Your task to perform on an android device: change notification settings in the gmail app Image 0: 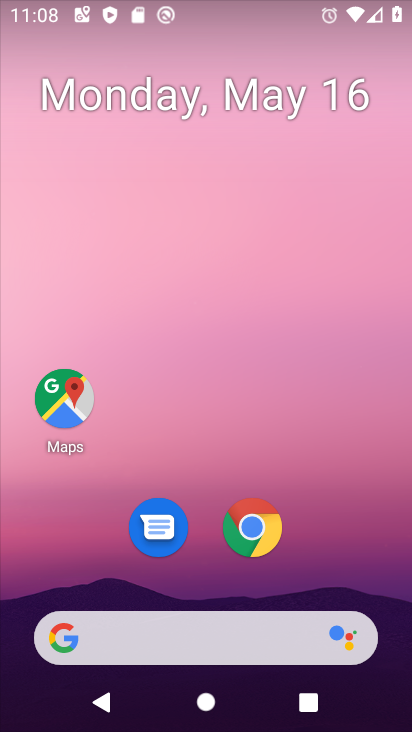
Step 0: drag from (364, 442) to (276, 6)
Your task to perform on an android device: change notification settings in the gmail app Image 1: 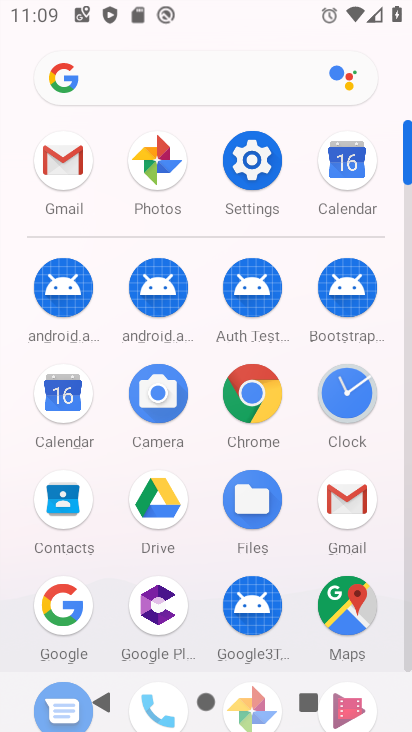
Step 1: click (62, 169)
Your task to perform on an android device: change notification settings in the gmail app Image 2: 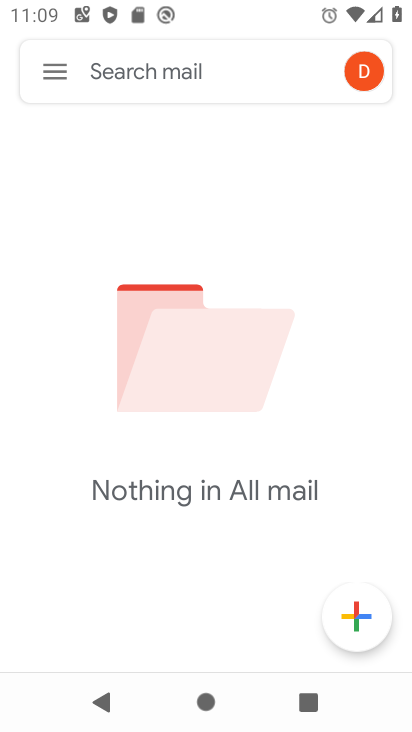
Step 2: click (44, 72)
Your task to perform on an android device: change notification settings in the gmail app Image 3: 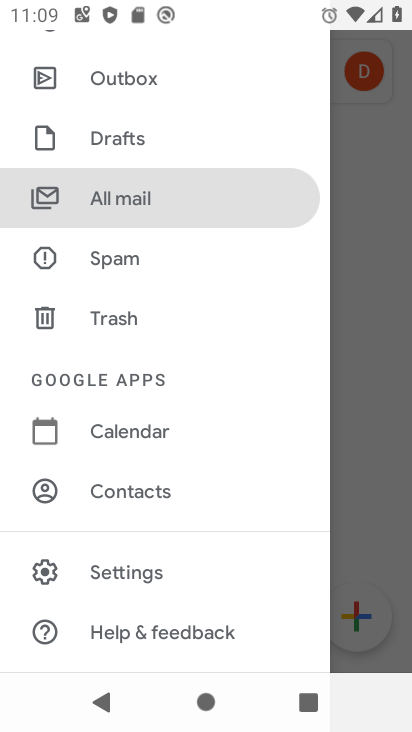
Step 3: click (126, 567)
Your task to perform on an android device: change notification settings in the gmail app Image 4: 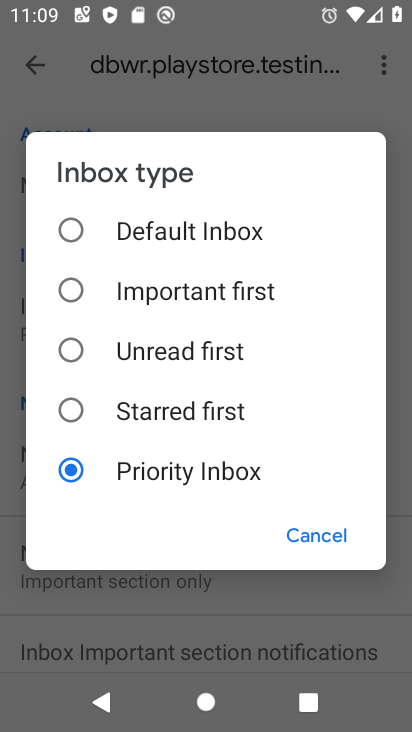
Step 4: click (324, 539)
Your task to perform on an android device: change notification settings in the gmail app Image 5: 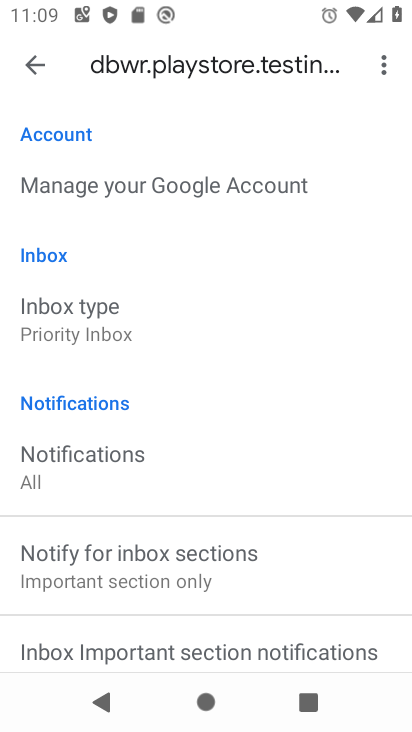
Step 5: click (37, 67)
Your task to perform on an android device: change notification settings in the gmail app Image 6: 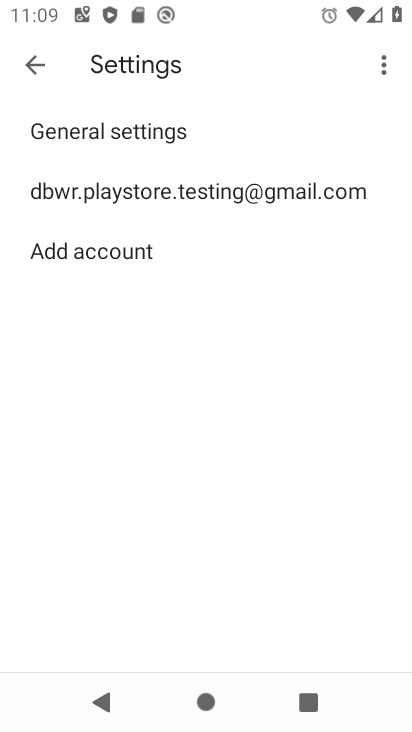
Step 6: click (75, 131)
Your task to perform on an android device: change notification settings in the gmail app Image 7: 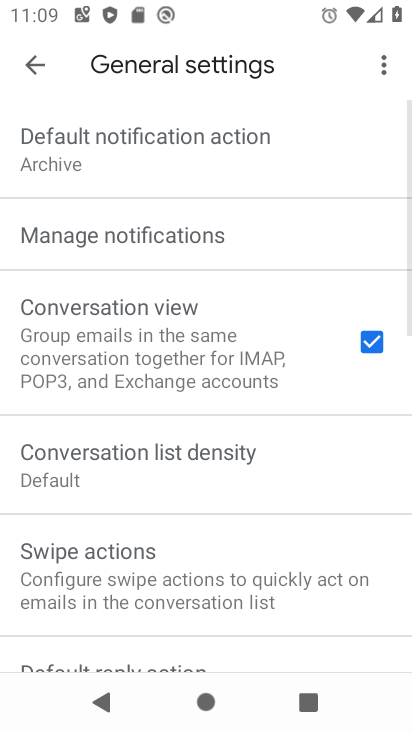
Step 7: click (89, 240)
Your task to perform on an android device: change notification settings in the gmail app Image 8: 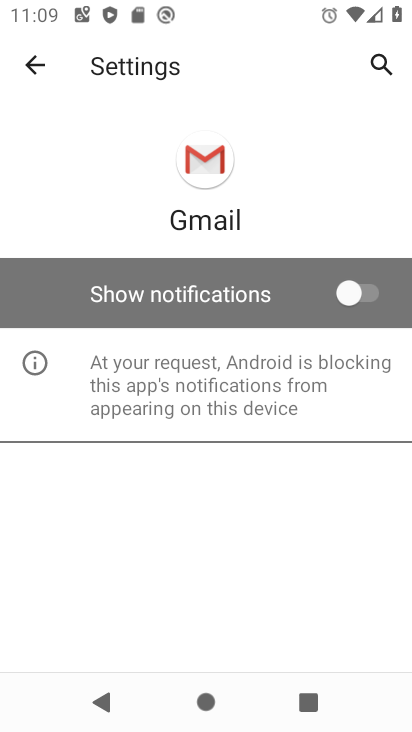
Step 8: click (361, 290)
Your task to perform on an android device: change notification settings in the gmail app Image 9: 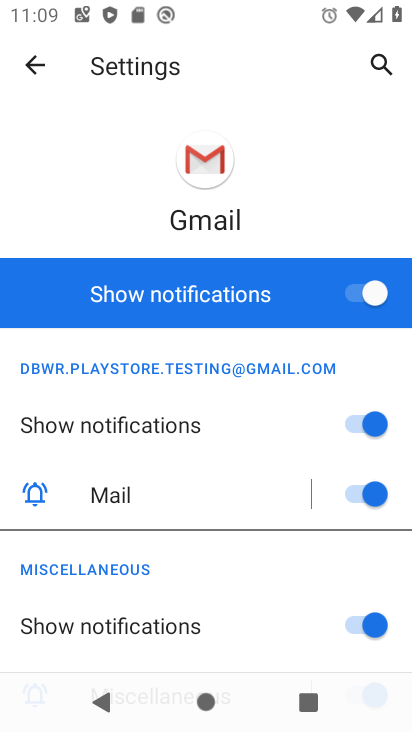
Step 9: task complete